Your task to perform on an android device: change notifications settings Image 0: 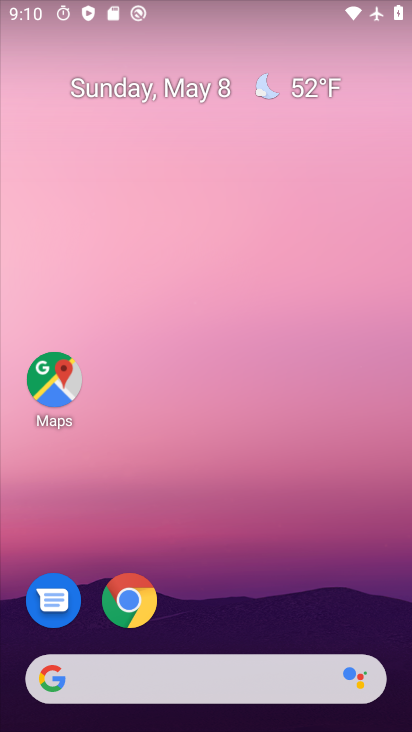
Step 0: drag from (273, 618) to (282, 200)
Your task to perform on an android device: change notifications settings Image 1: 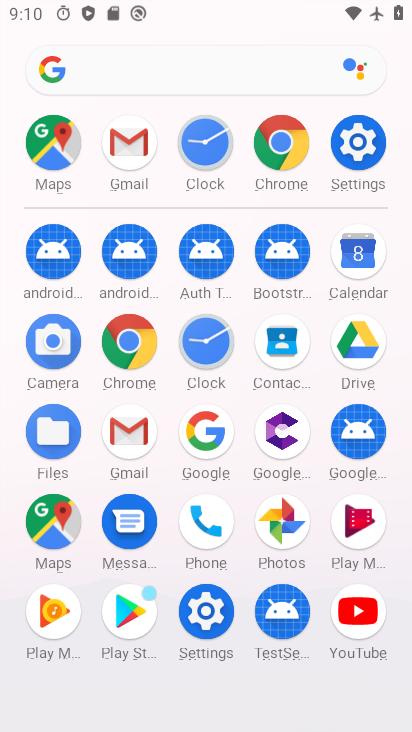
Step 1: click (376, 157)
Your task to perform on an android device: change notifications settings Image 2: 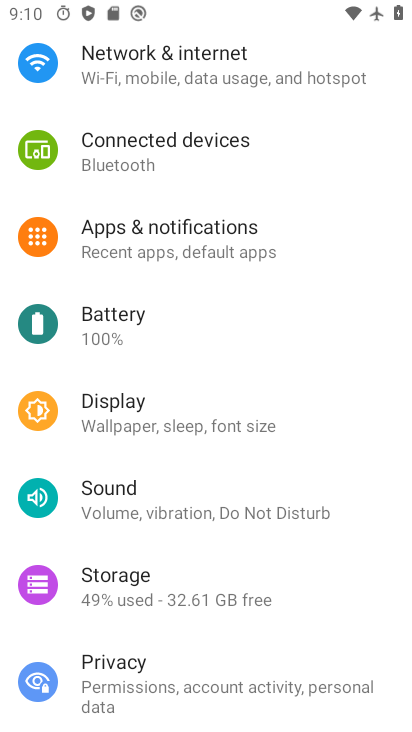
Step 2: click (256, 251)
Your task to perform on an android device: change notifications settings Image 3: 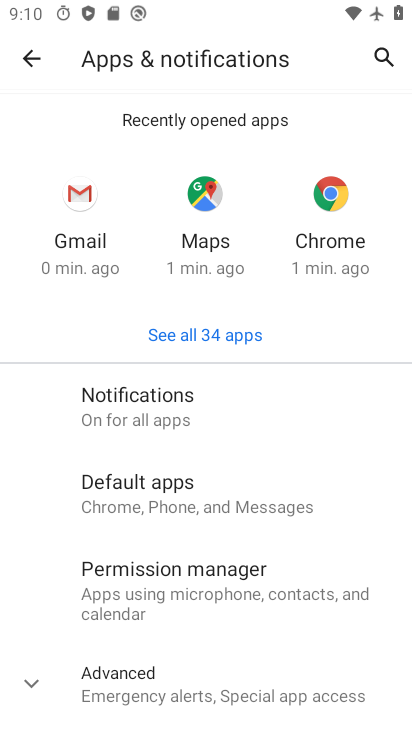
Step 3: click (269, 422)
Your task to perform on an android device: change notifications settings Image 4: 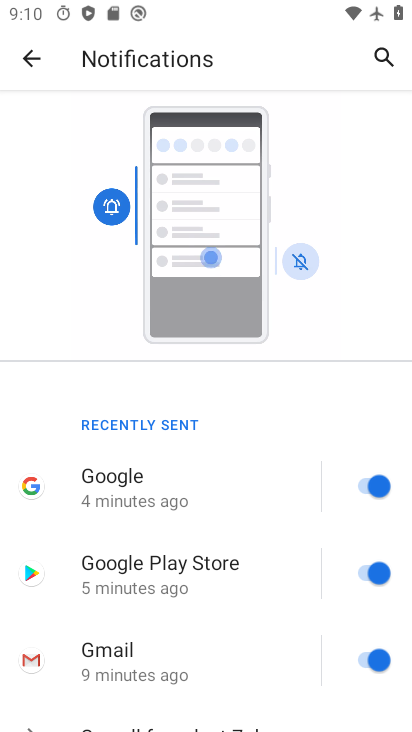
Step 4: task complete